Your task to perform on an android device: Go to settings Image 0: 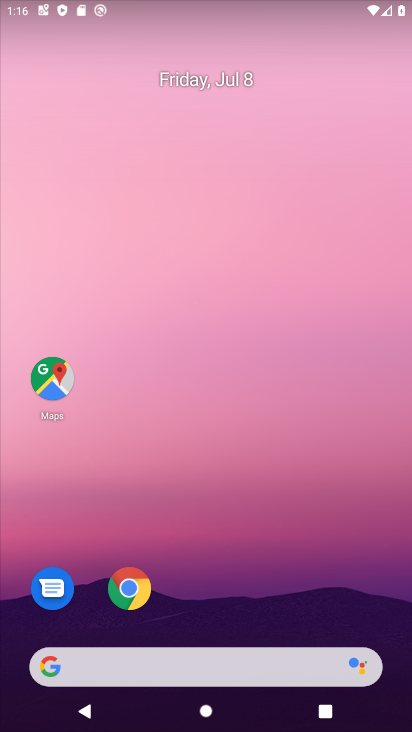
Step 0: drag from (203, 641) to (269, 214)
Your task to perform on an android device: Go to settings Image 1: 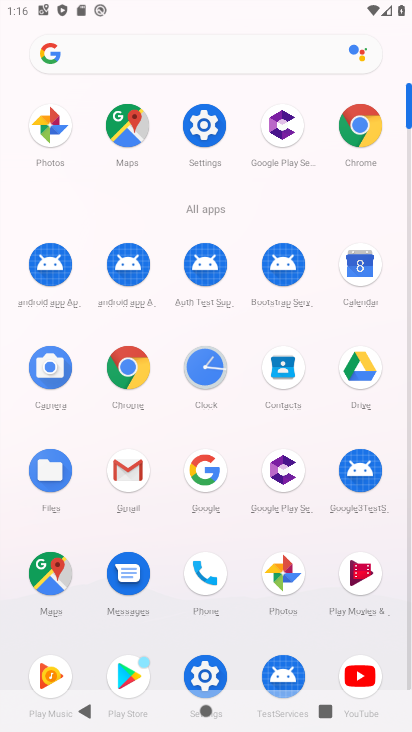
Step 1: click (193, 680)
Your task to perform on an android device: Go to settings Image 2: 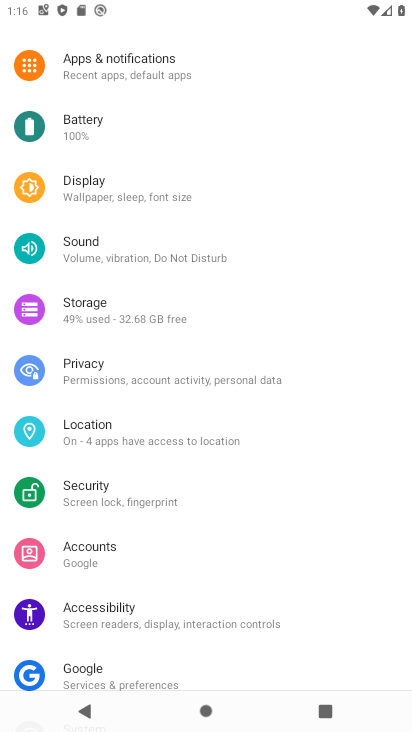
Step 2: task complete